Your task to perform on an android device: visit the assistant section in the google photos Image 0: 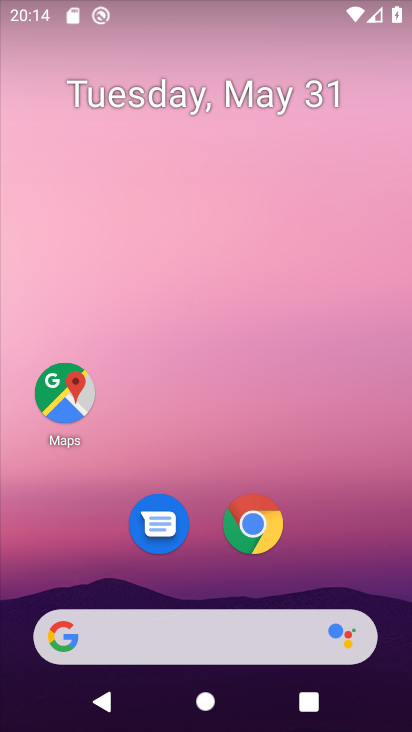
Step 0: drag from (315, 549) to (305, 0)
Your task to perform on an android device: visit the assistant section in the google photos Image 1: 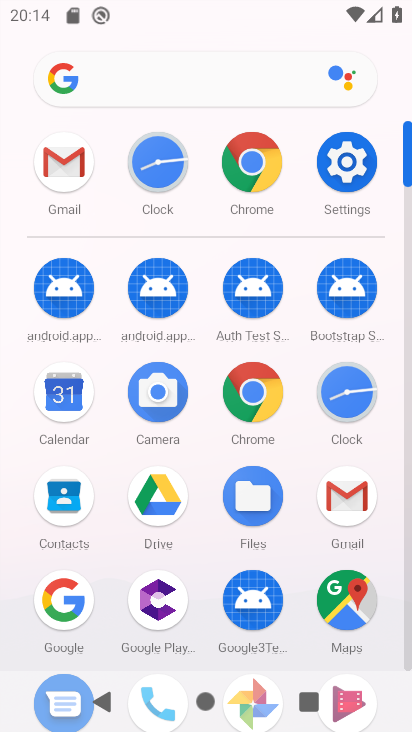
Step 1: drag from (213, 540) to (228, 229)
Your task to perform on an android device: visit the assistant section in the google photos Image 2: 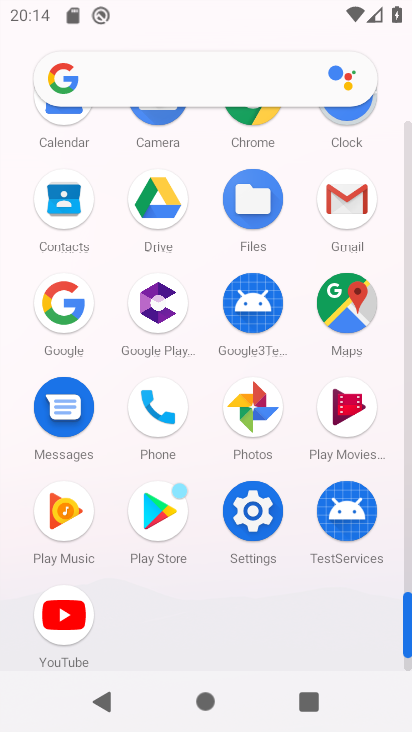
Step 2: click (250, 394)
Your task to perform on an android device: visit the assistant section in the google photos Image 3: 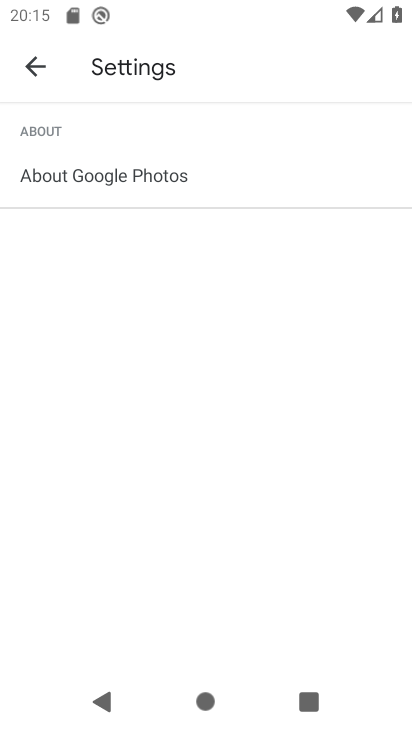
Step 3: click (45, 69)
Your task to perform on an android device: visit the assistant section in the google photos Image 4: 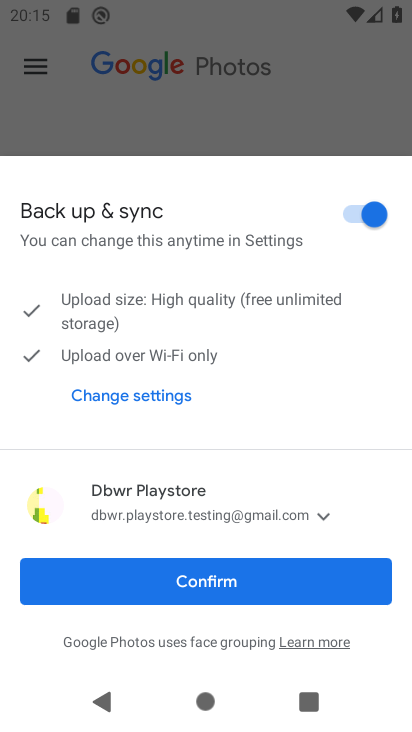
Step 4: click (254, 583)
Your task to perform on an android device: visit the assistant section in the google photos Image 5: 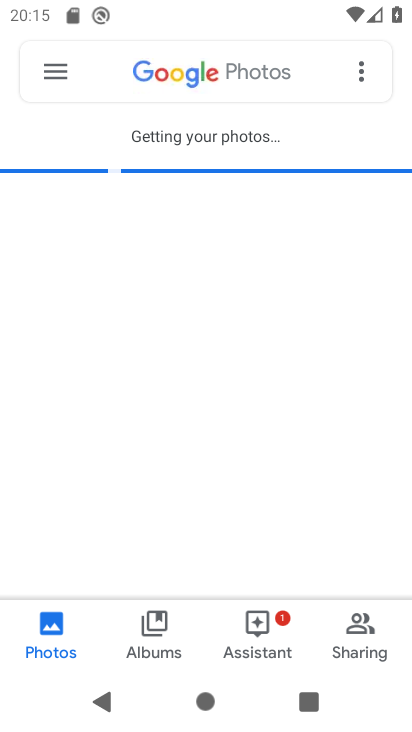
Step 5: click (262, 625)
Your task to perform on an android device: visit the assistant section in the google photos Image 6: 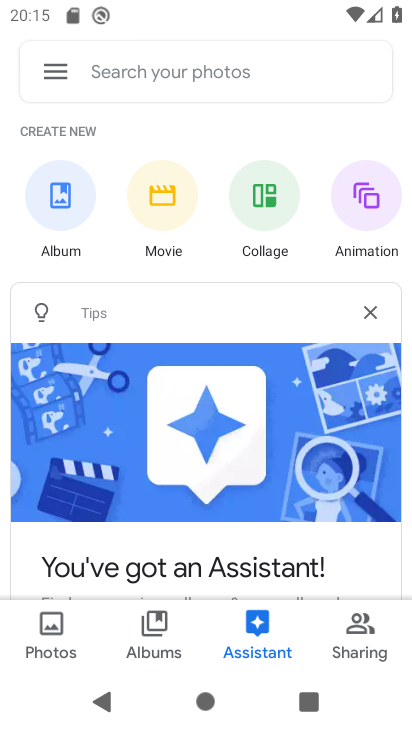
Step 6: task complete